Your task to perform on an android device: turn off location Image 0: 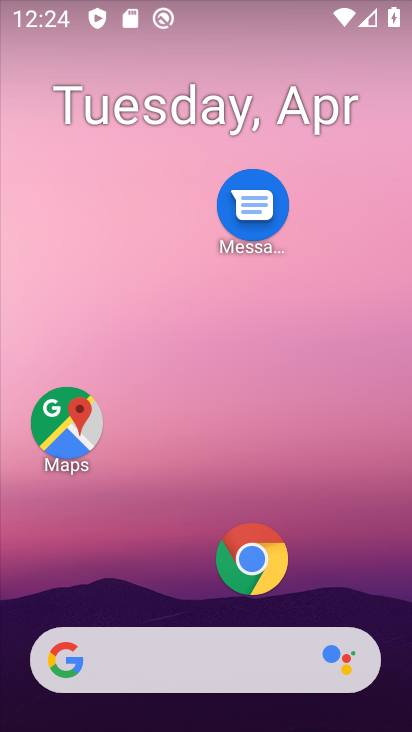
Step 0: drag from (176, 602) to (214, 4)
Your task to perform on an android device: turn off location Image 1: 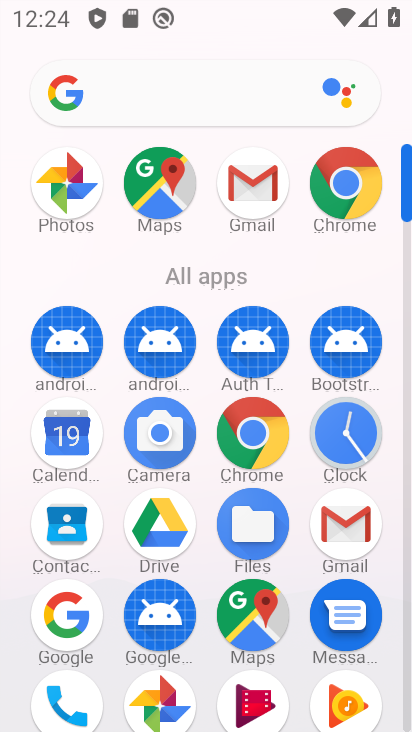
Step 1: drag from (205, 619) to (231, 212)
Your task to perform on an android device: turn off location Image 2: 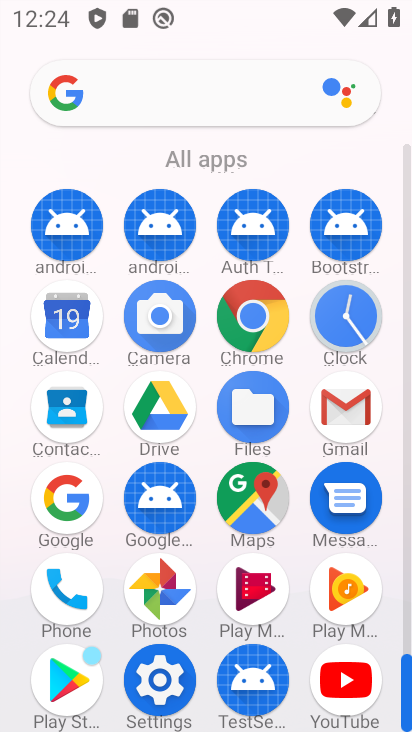
Step 2: click (166, 671)
Your task to perform on an android device: turn off location Image 3: 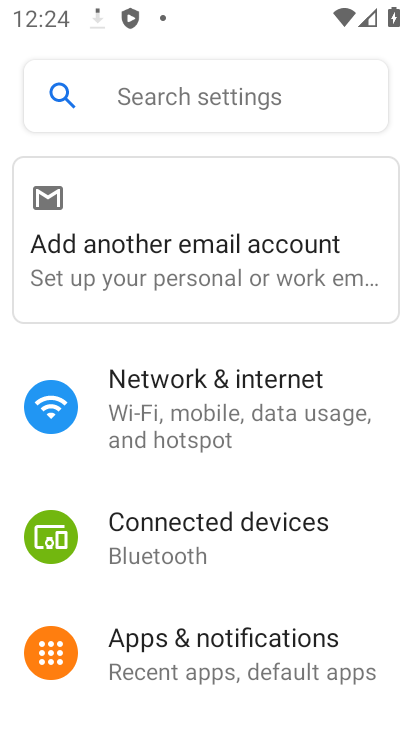
Step 3: drag from (186, 495) to (214, 235)
Your task to perform on an android device: turn off location Image 4: 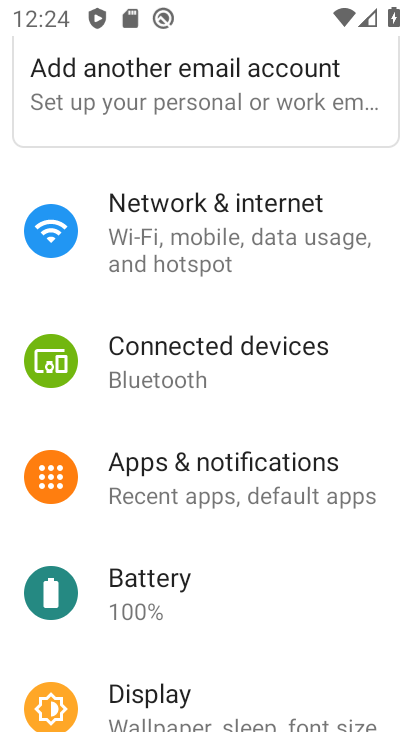
Step 4: drag from (225, 564) to (239, 286)
Your task to perform on an android device: turn off location Image 5: 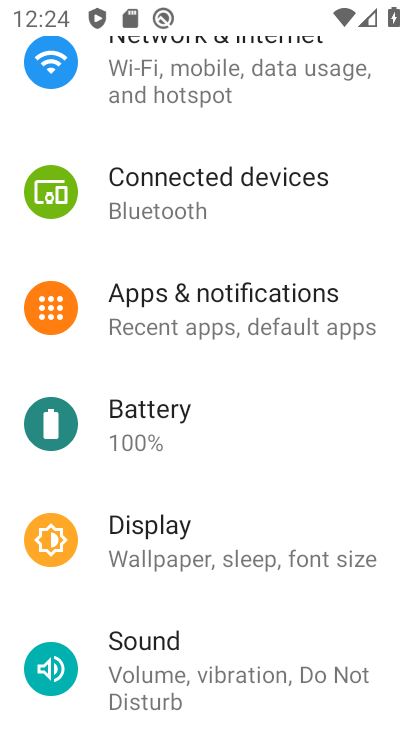
Step 5: drag from (212, 509) to (227, 227)
Your task to perform on an android device: turn off location Image 6: 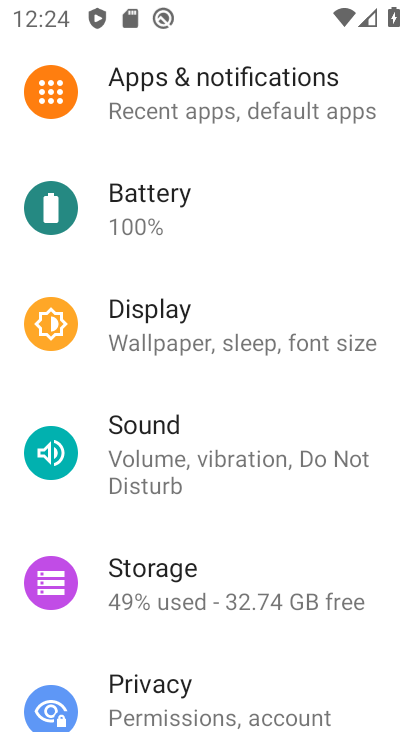
Step 6: drag from (201, 623) to (214, 238)
Your task to perform on an android device: turn off location Image 7: 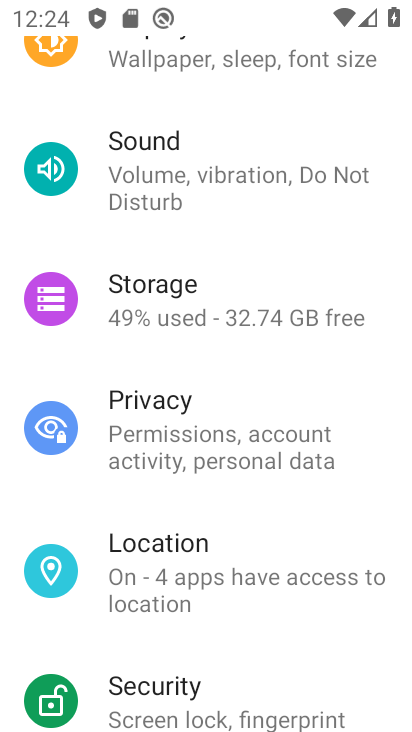
Step 7: click (206, 565)
Your task to perform on an android device: turn off location Image 8: 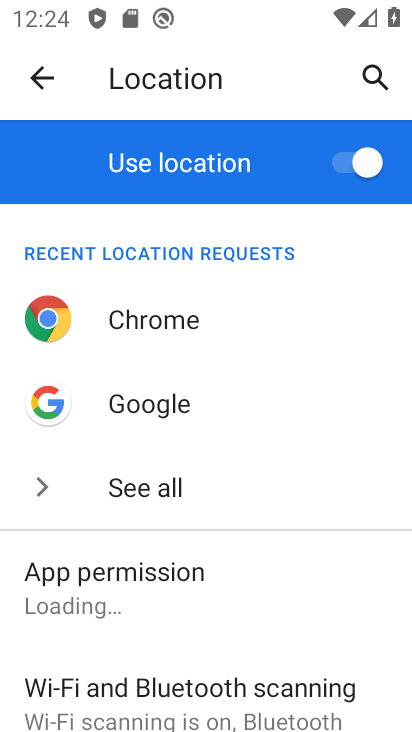
Step 8: click (352, 165)
Your task to perform on an android device: turn off location Image 9: 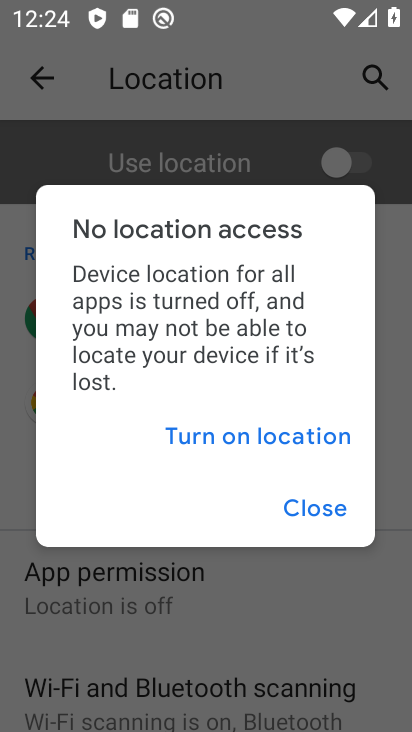
Step 9: click (304, 503)
Your task to perform on an android device: turn off location Image 10: 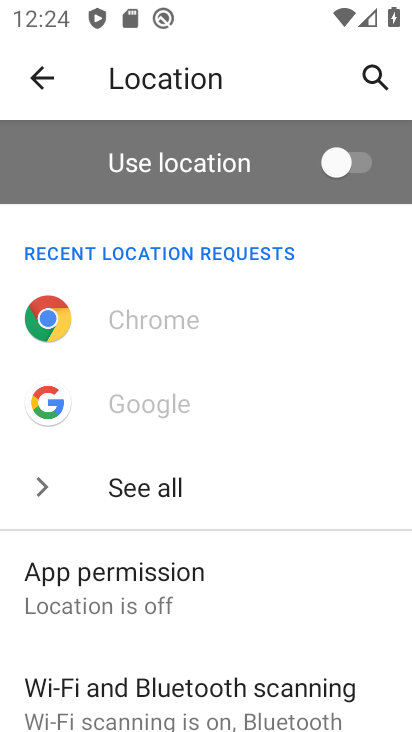
Step 10: task complete